Your task to perform on an android device: turn on airplane mode Image 0: 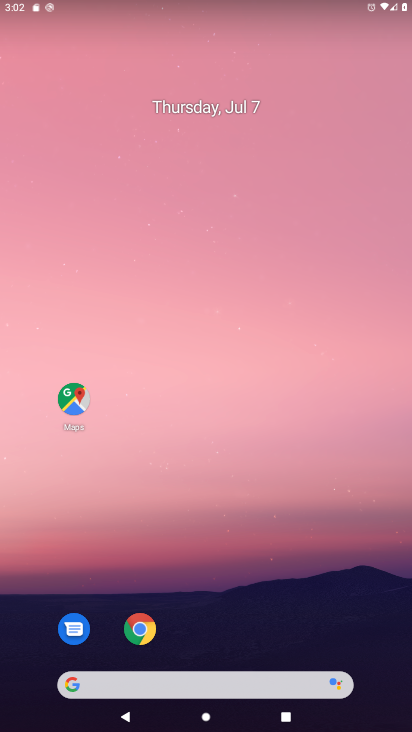
Step 0: drag from (310, 14) to (311, 323)
Your task to perform on an android device: turn on airplane mode Image 1: 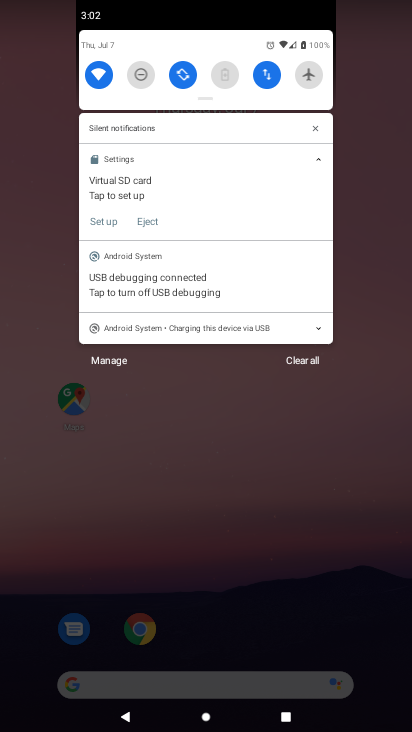
Step 1: click (311, 72)
Your task to perform on an android device: turn on airplane mode Image 2: 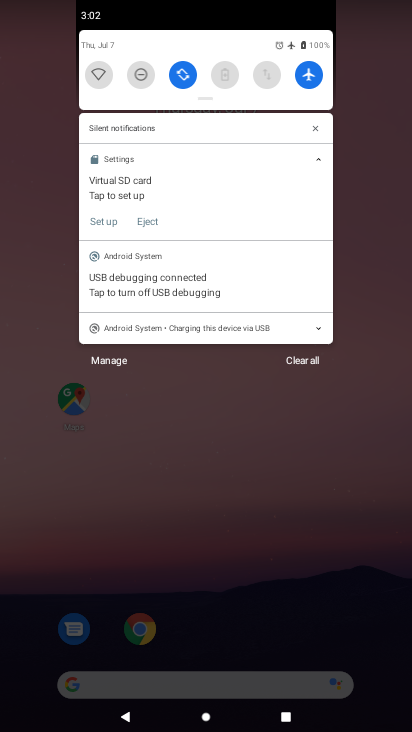
Step 2: task complete